Your task to perform on an android device: Do I have any events this weekend? Image 0: 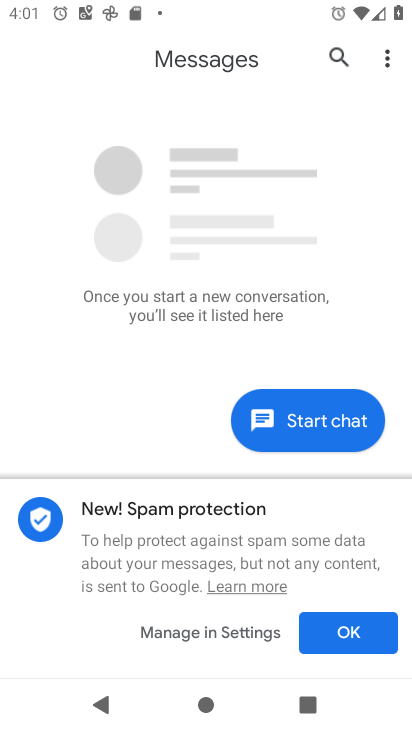
Step 0: press home button
Your task to perform on an android device: Do I have any events this weekend? Image 1: 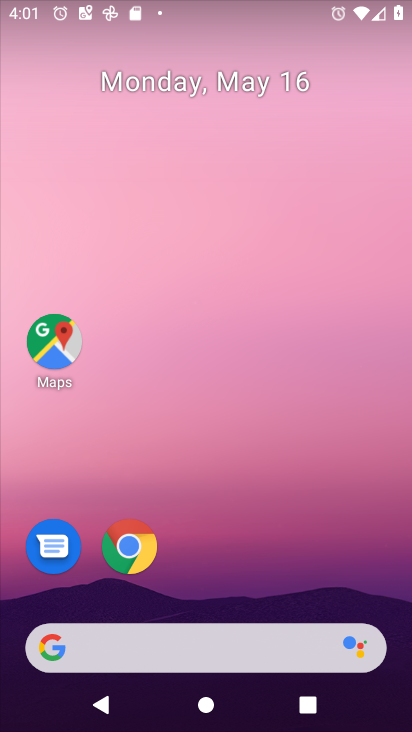
Step 1: drag from (306, 561) to (330, 180)
Your task to perform on an android device: Do I have any events this weekend? Image 2: 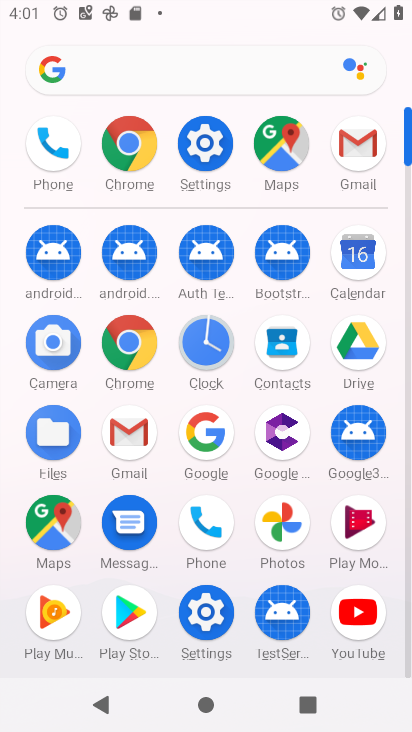
Step 2: click (131, 345)
Your task to perform on an android device: Do I have any events this weekend? Image 3: 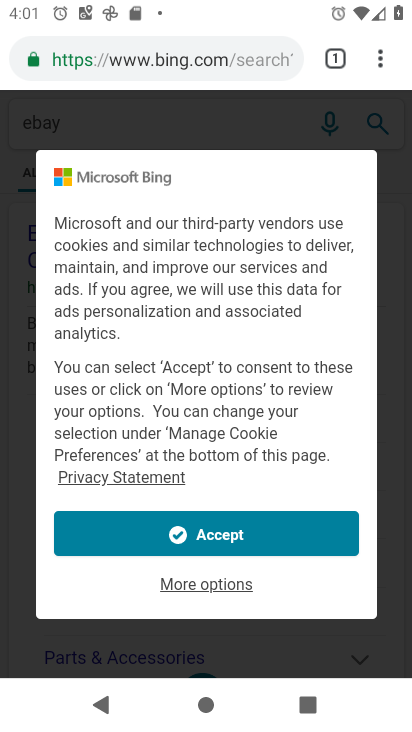
Step 3: press home button
Your task to perform on an android device: Do I have any events this weekend? Image 4: 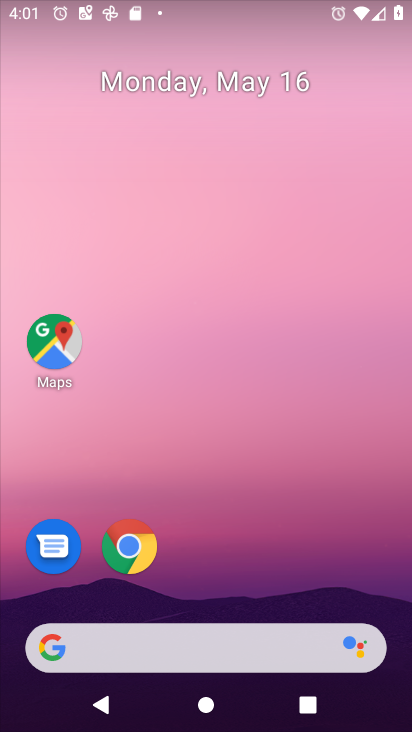
Step 4: drag from (363, 570) to (411, 356)
Your task to perform on an android device: Do I have any events this weekend? Image 5: 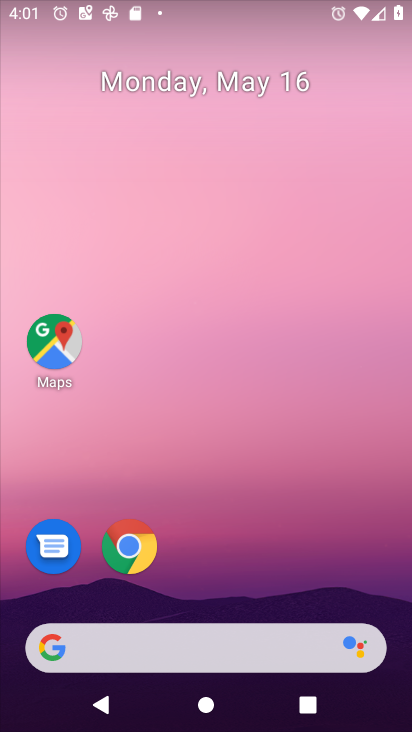
Step 5: drag from (272, 513) to (240, 11)
Your task to perform on an android device: Do I have any events this weekend? Image 6: 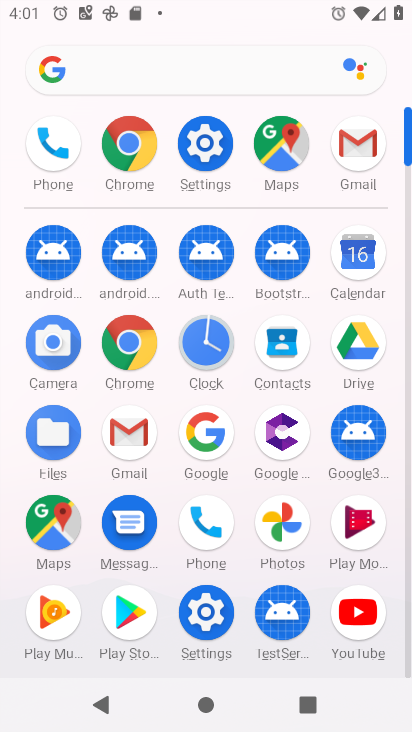
Step 6: click (346, 274)
Your task to perform on an android device: Do I have any events this weekend? Image 7: 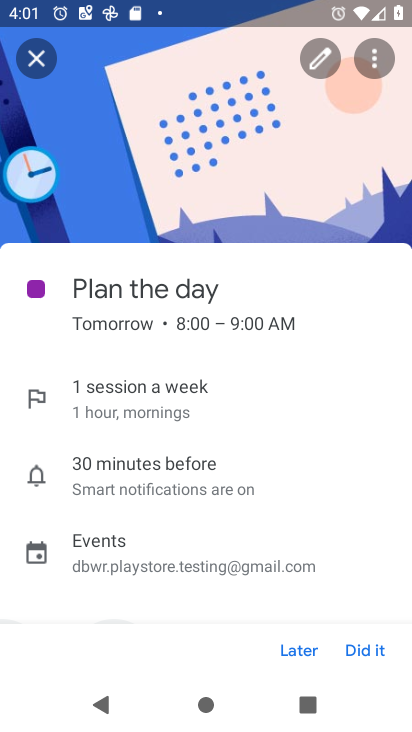
Step 7: click (33, 59)
Your task to perform on an android device: Do I have any events this weekend? Image 8: 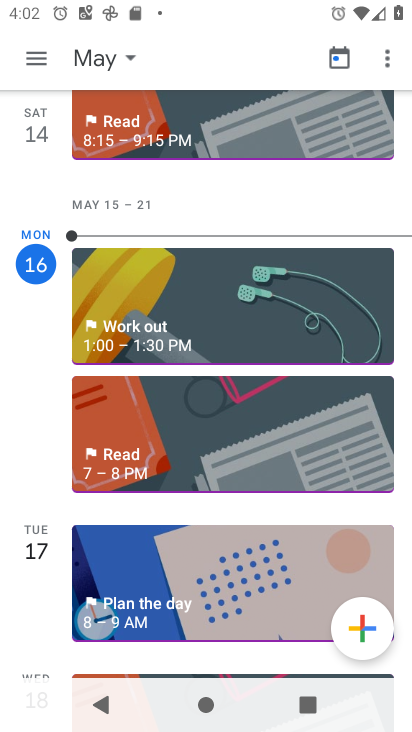
Step 8: click (139, 65)
Your task to perform on an android device: Do I have any events this weekend? Image 9: 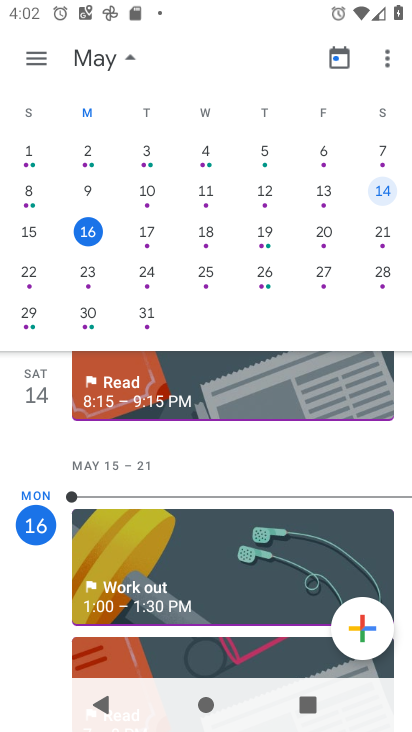
Step 9: click (382, 230)
Your task to perform on an android device: Do I have any events this weekend? Image 10: 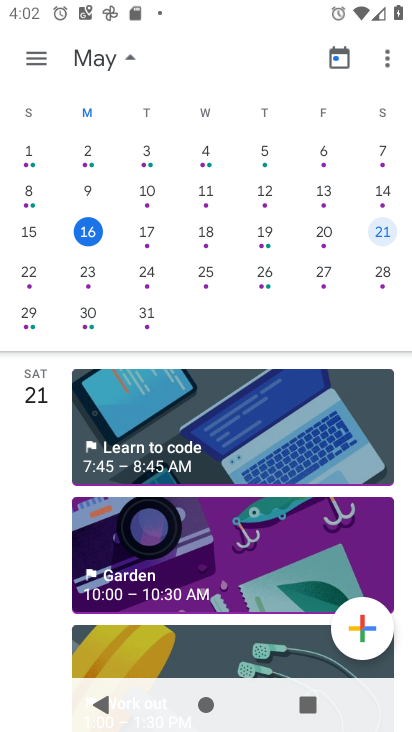
Step 10: click (264, 457)
Your task to perform on an android device: Do I have any events this weekend? Image 11: 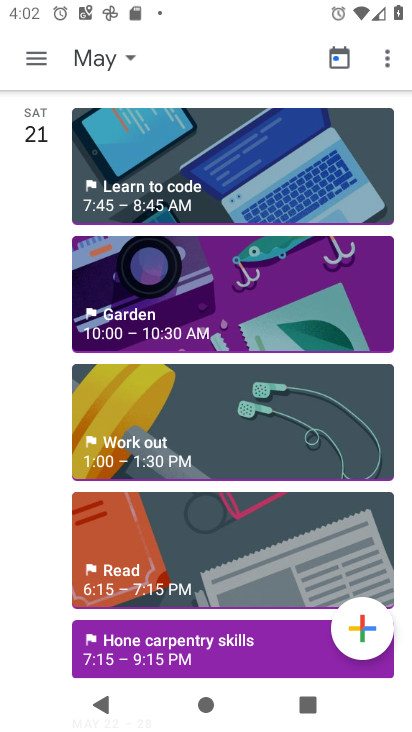
Step 11: click (228, 315)
Your task to perform on an android device: Do I have any events this weekend? Image 12: 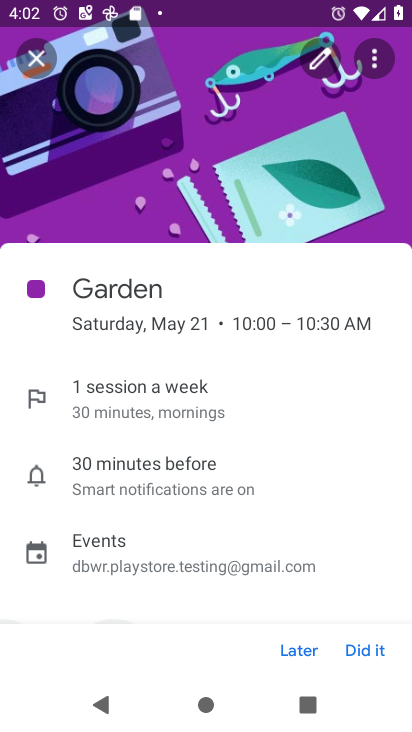
Step 12: task complete